Your task to perform on an android device: Do I have any events today? Image 0: 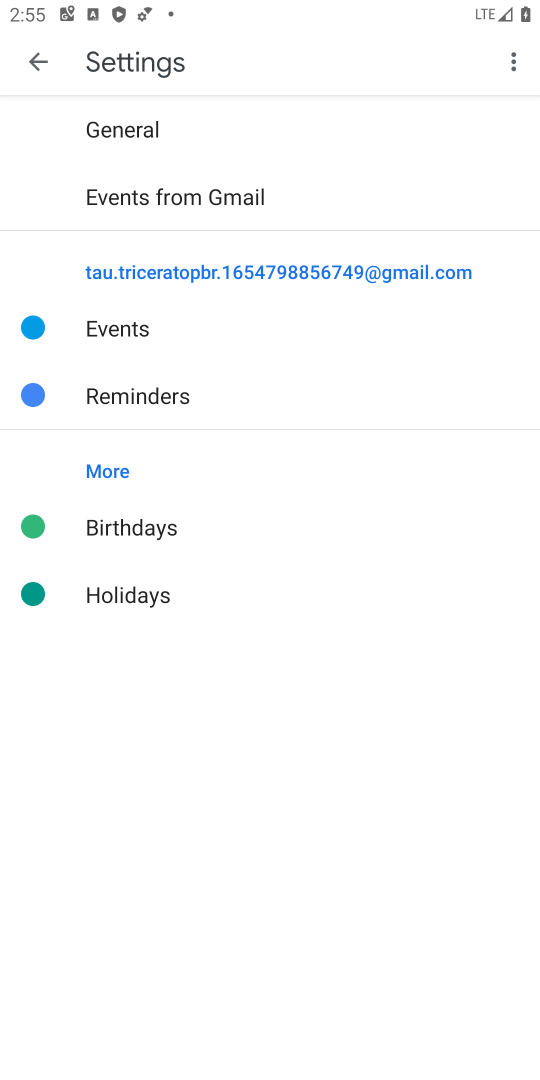
Step 0: press home button
Your task to perform on an android device: Do I have any events today? Image 1: 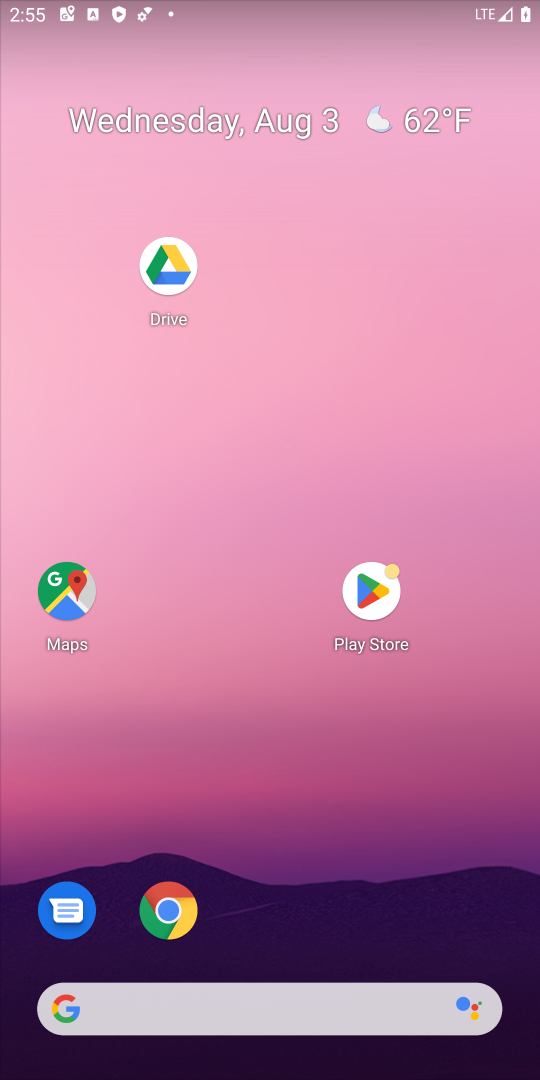
Step 1: drag from (190, 840) to (241, 0)
Your task to perform on an android device: Do I have any events today? Image 2: 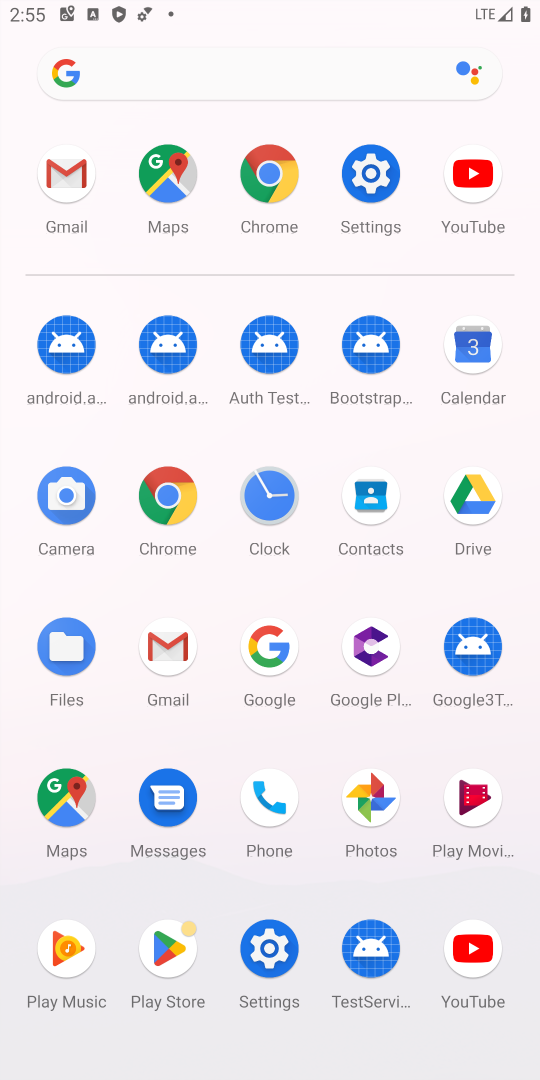
Step 2: click (476, 346)
Your task to perform on an android device: Do I have any events today? Image 3: 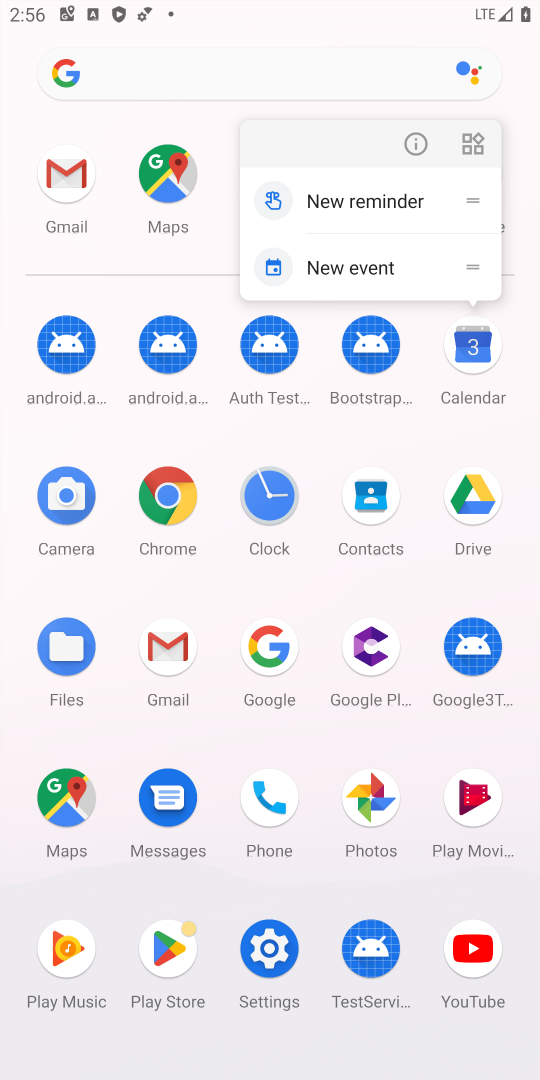
Step 3: click (486, 350)
Your task to perform on an android device: Do I have any events today? Image 4: 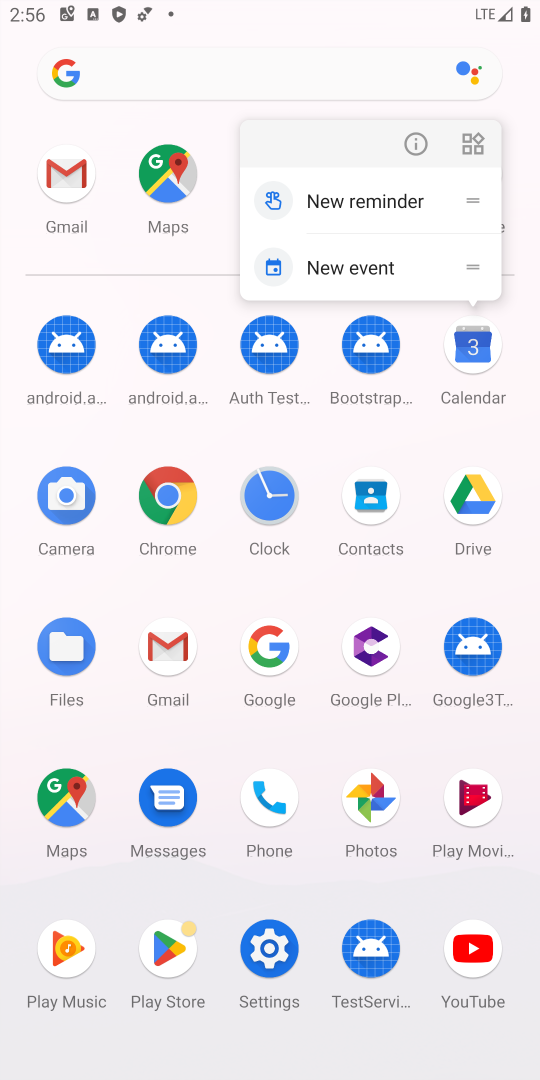
Step 4: click (470, 350)
Your task to perform on an android device: Do I have any events today? Image 5: 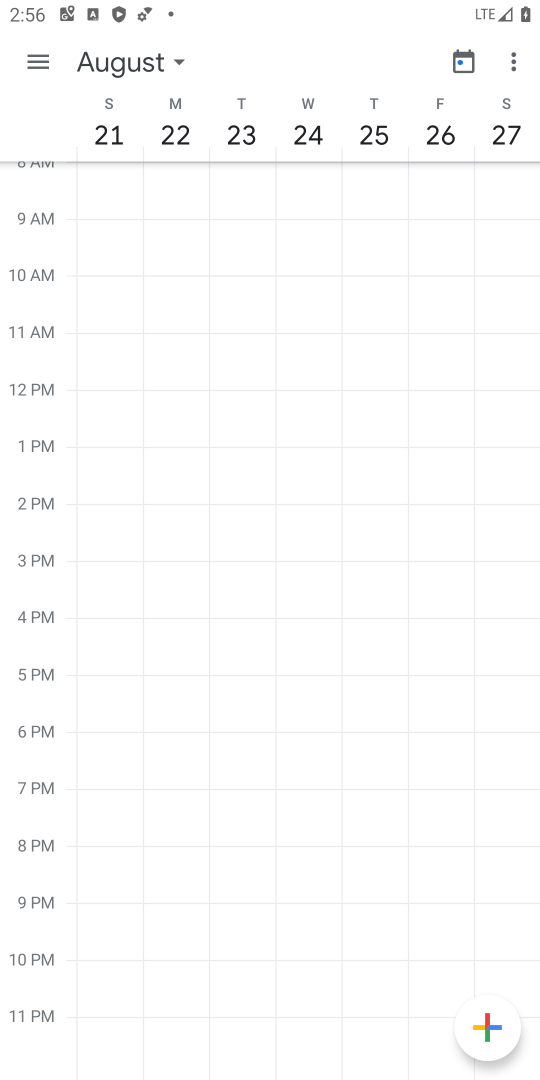
Step 5: click (176, 50)
Your task to perform on an android device: Do I have any events today? Image 6: 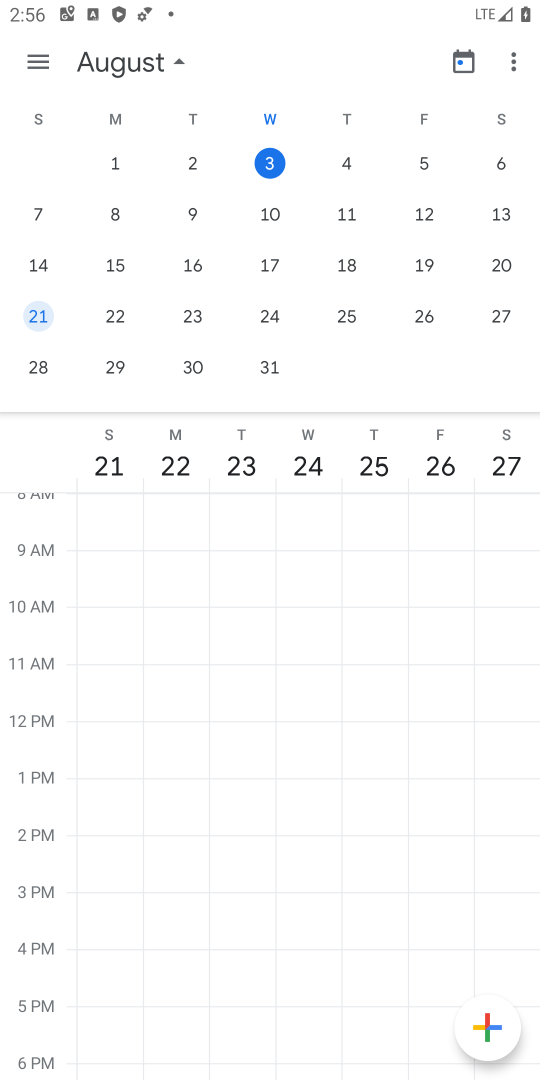
Step 6: click (273, 156)
Your task to perform on an android device: Do I have any events today? Image 7: 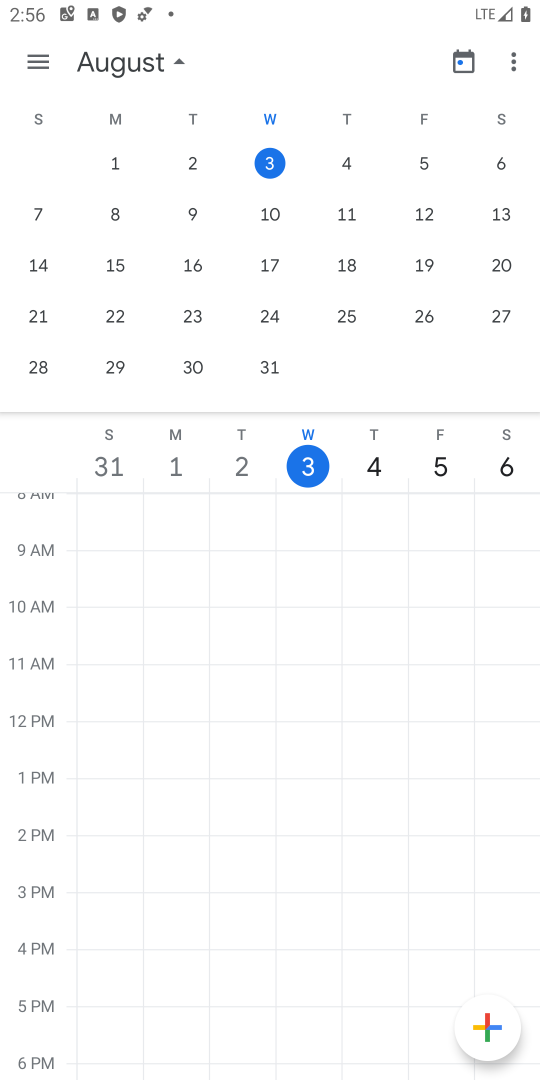
Step 7: task complete